Your task to perform on an android device: Clear all items from cart on walmart.com. Search for jbl flip 4 on walmart.com, select the first entry, add it to the cart, then select checkout. Image 0: 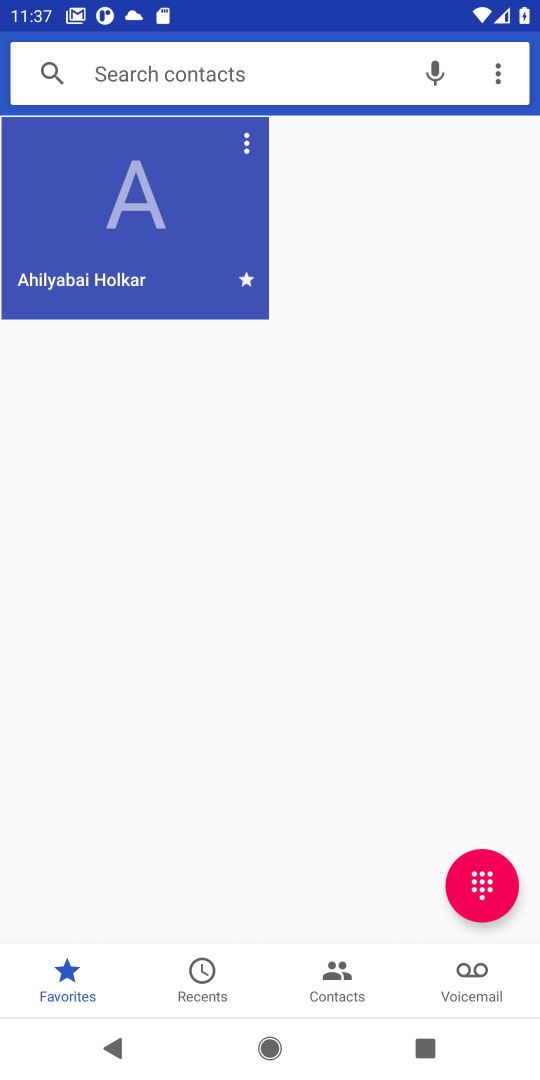
Step 0: press home button
Your task to perform on an android device: Clear all items from cart on walmart.com. Search for jbl flip 4 on walmart.com, select the first entry, add it to the cart, then select checkout. Image 1: 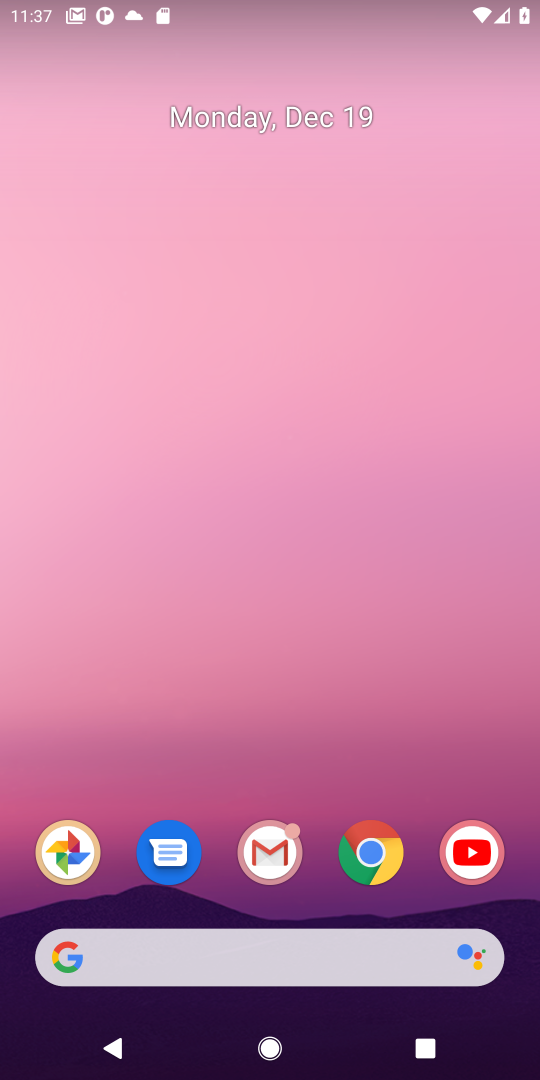
Step 1: click (364, 865)
Your task to perform on an android device: Clear all items from cart on walmart.com. Search for jbl flip 4 on walmart.com, select the first entry, add it to the cart, then select checkout. Image 2: 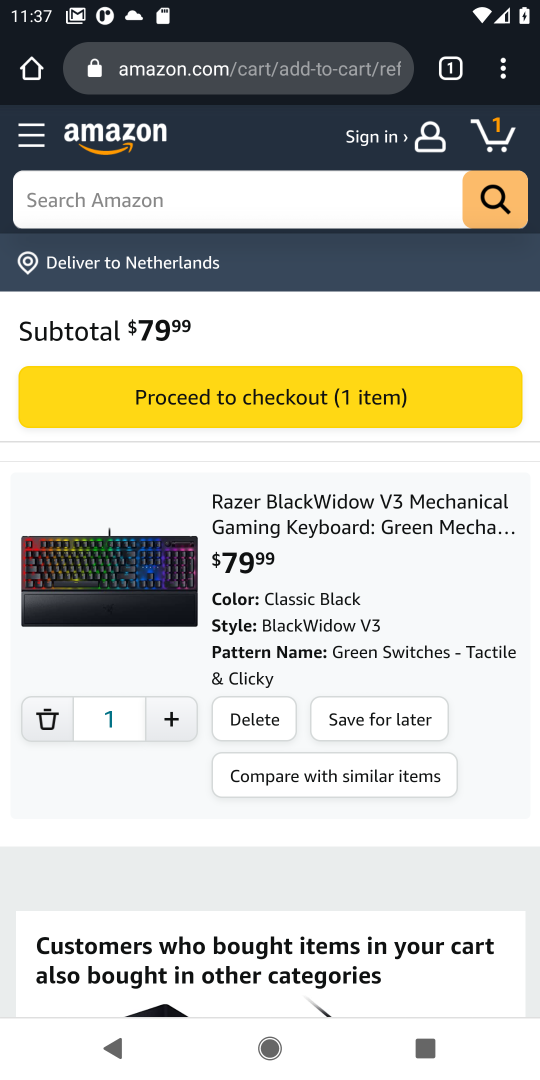
Step 2: click (168, 71)
Your task to perform on an android device: Clear all items from cart on walmart.com. Search for jbl flip 4 on walmart.com, select the first entry, add it to the cart, then select checkout. Image 3: 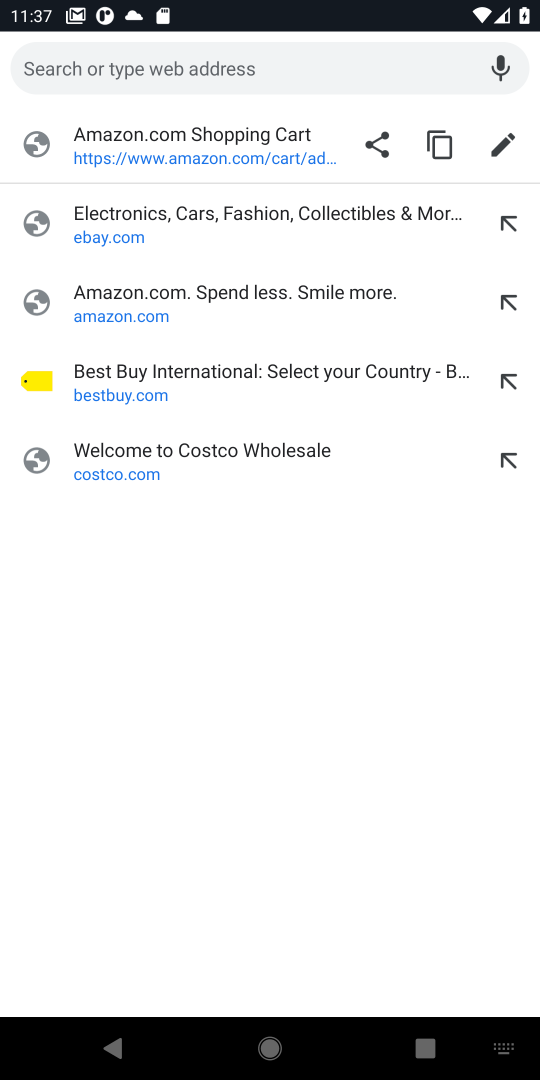
Step 3: type "walmart.com"
Your task to perform on an android device: Clear all items from cart on walmart.com. Search for jbl flip 4 on walmart.com, select the first entry, add it to the cart, then select checkout. Image 4: 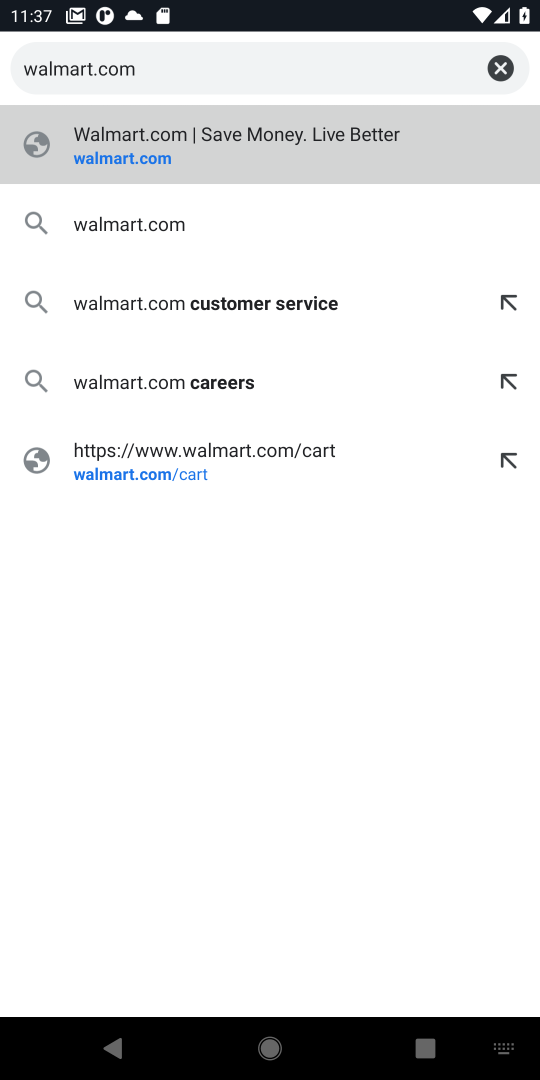
Step 4: click (104, 166)
Your task to perform on an android device: Clear all items from cart on walmart.com. Search for jbl flip 4 on walmart.com, select the first entry, add it to the cart, then select checkout. Image 5: 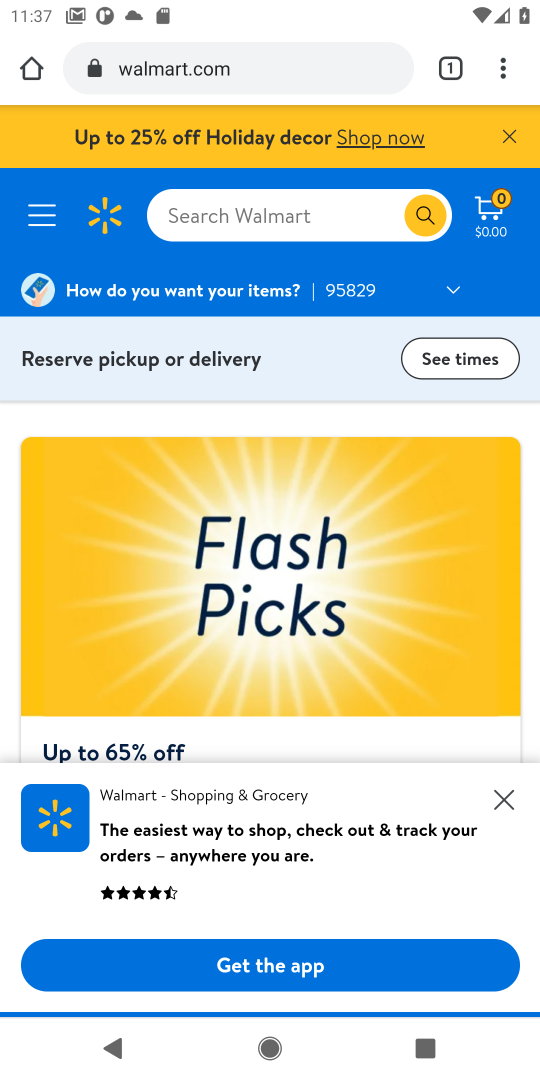
Step 5: click (490, 226)
Your task to perform on an android device: Clear all items from cart on walmart.com. Search for jbl flip 4 on walmart.com, select the first entry, add it to the cart, then select checkout. Image 6: 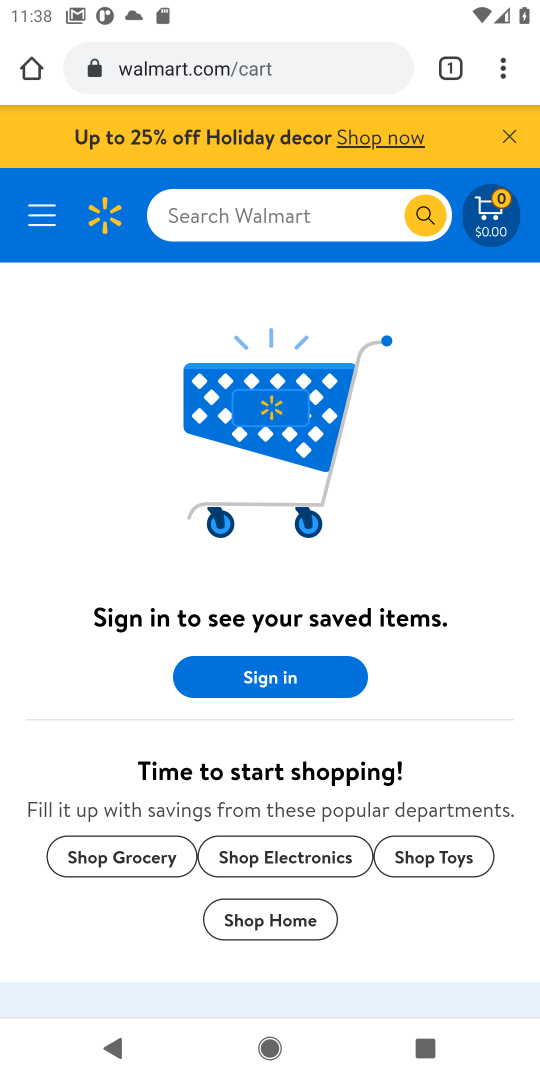
Step 6: click (230, 223)
Your task to perform on an android device: Clear all items from cart on walmart.com. Search for jbl flip 4 on walmart.com, select the first entry, add it to the cart, then select checkout. Image 7: 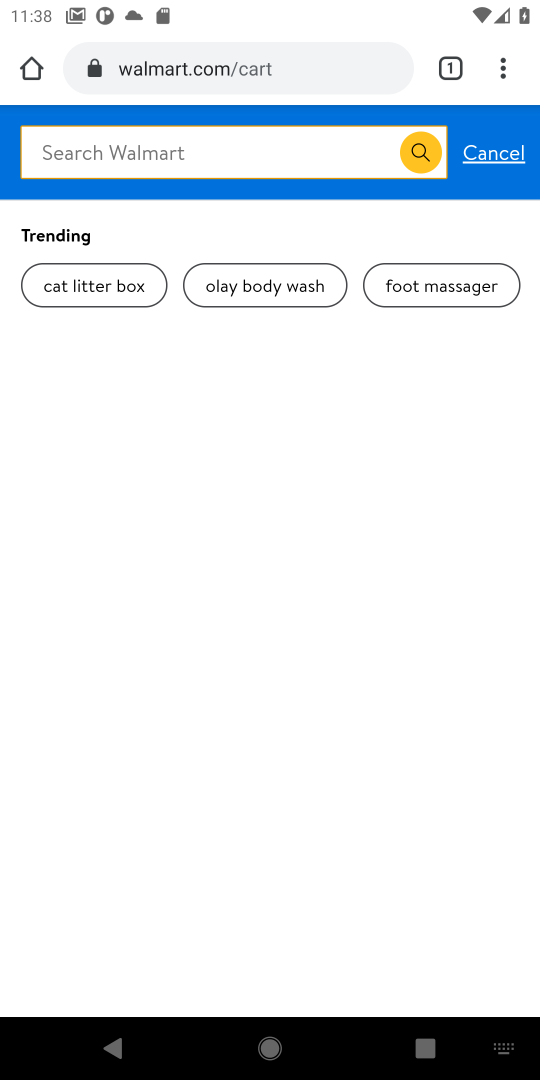
Step 7: type " jbl flip 4"
Your task to perform on an android device: Clear all items from cart on walmart.com. Search for jbl flip 4 on walmart.com, select the first entry, add it to the cart, then select checkout. Image 8: 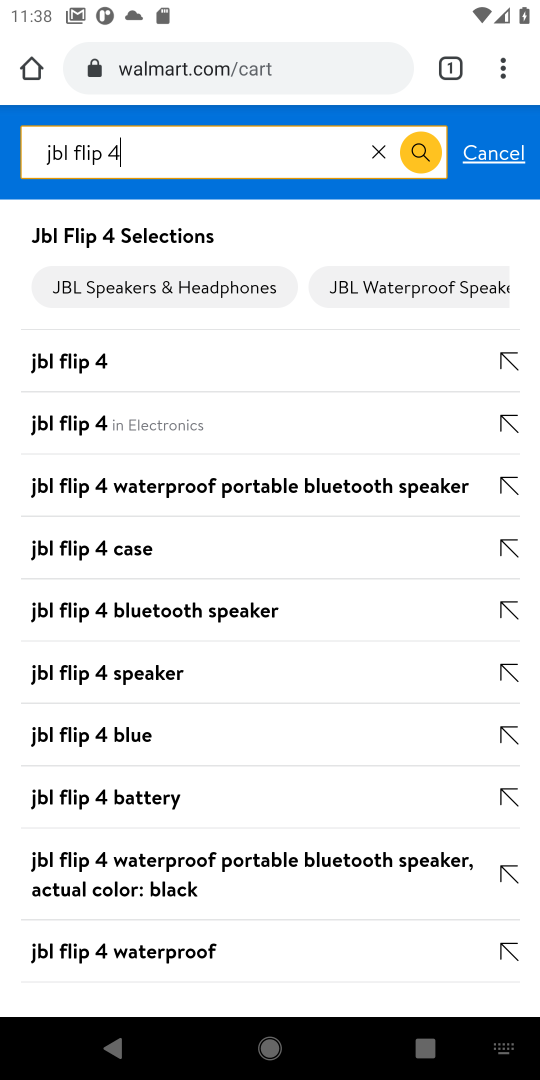
Step 8: click (94, 367)
Your task to perform on an android device: Clear all items from cart on walmart.com. Search for jbl flip 4 on walmart.com, select the first entry, add it to the cart, then select checkout. Image 9: 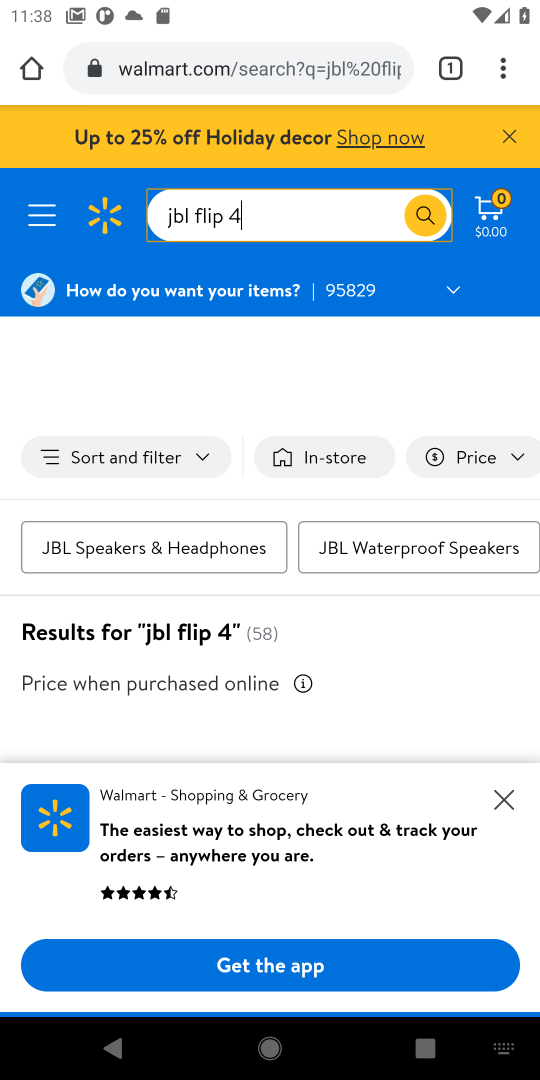
Step 9: drag from (339, 699) to (311, 389)
Your task to perform on an android device: Clear all items from cart on walmart.com. Search for jbl flip 4 on walmart.com, select the first entry, add it to the cart, then select checkout. Image 10: 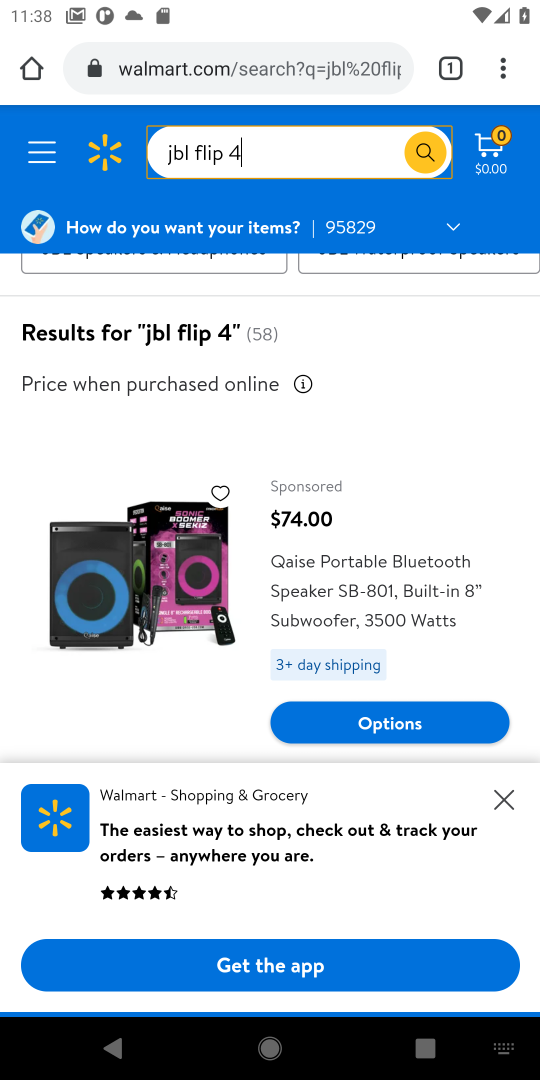
Step 10: click (513, 794)
Your task to perform on an android device: Clear all items from cart on walmart.com. Search for jbl flip 4 on walmart.com, select the first entry, add it to the cart, then select checkout. Image 11: 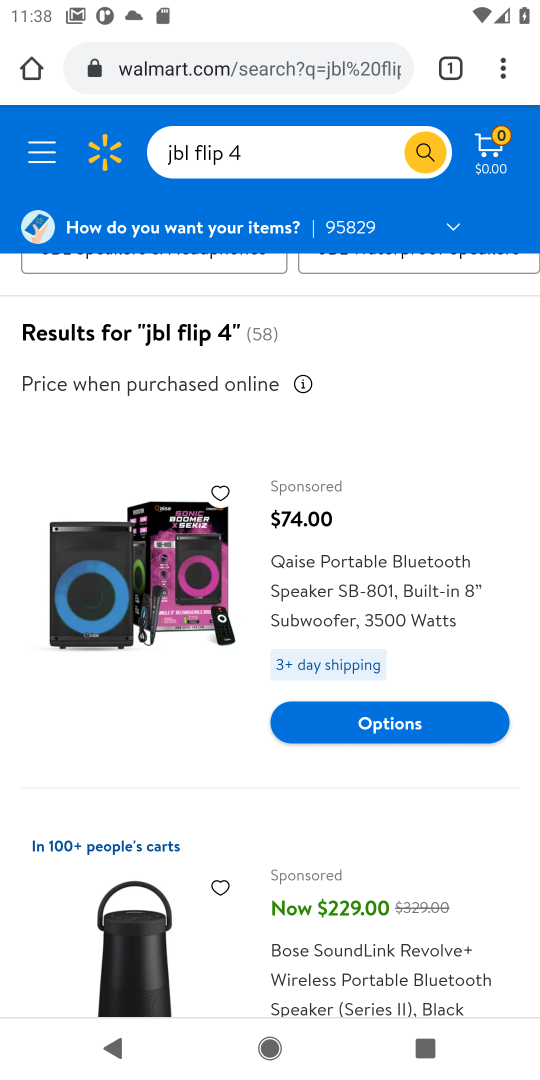
Step 11: task complete